Your task to perform on an android device: Open my contact list Image 0: 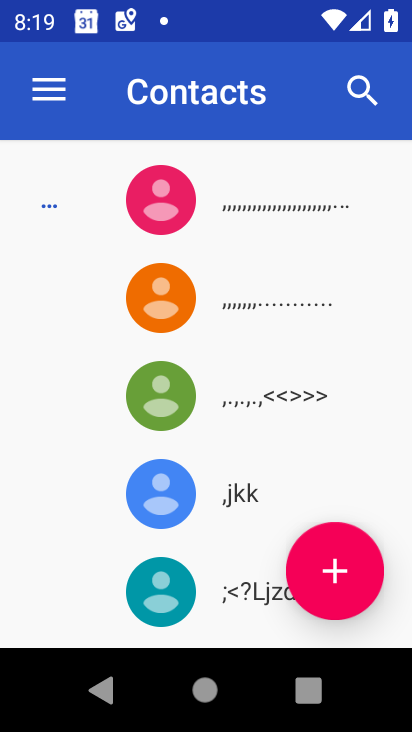
Step 0: task complete